Your task to perform on an android device: turn on bluetooth scan Image 0: 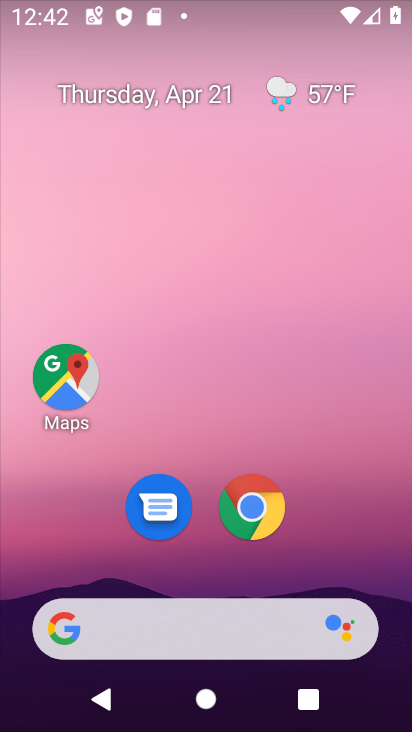
Step 0: drag from (198, 547) to (67, 0)
Your task to perform on an android device: turn on bluetooth scan Image 1: 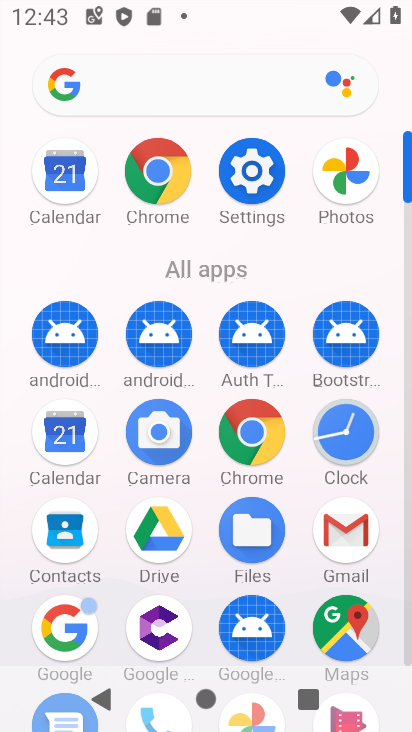
Step 1: click (252, 181)
Your task to perform on an android device: turn on bluetooth scan Image 2: 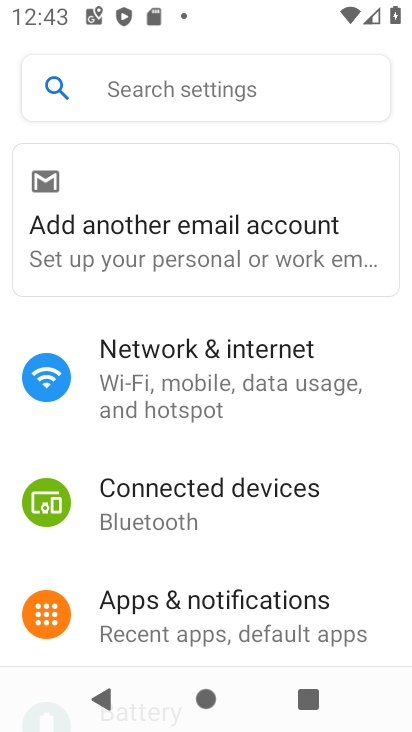
Step 2: click (202, 89)
Your task to perform on an android device: turn on bluetooth scan Image 3: 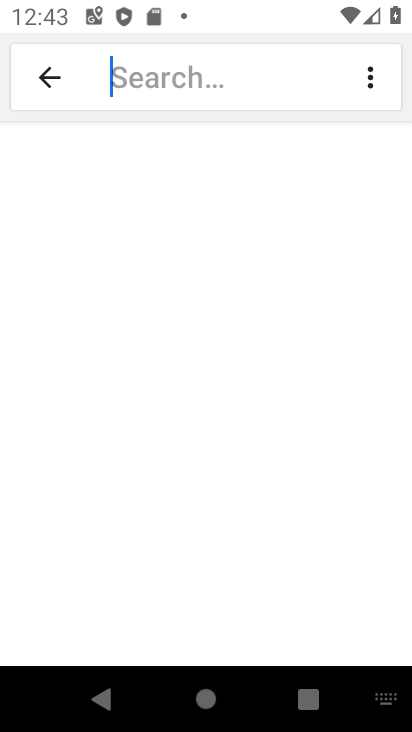
Step 3: type "bluetooth"
Your task to perform on an android device: turn on bluetooth scan Image 4: 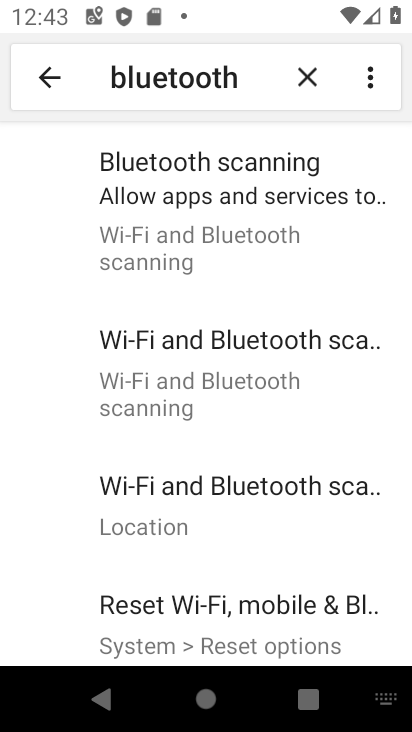
Step 4: click (284, 185)
Your task to perform on an android device: turn on bluetooth scan Image 5: 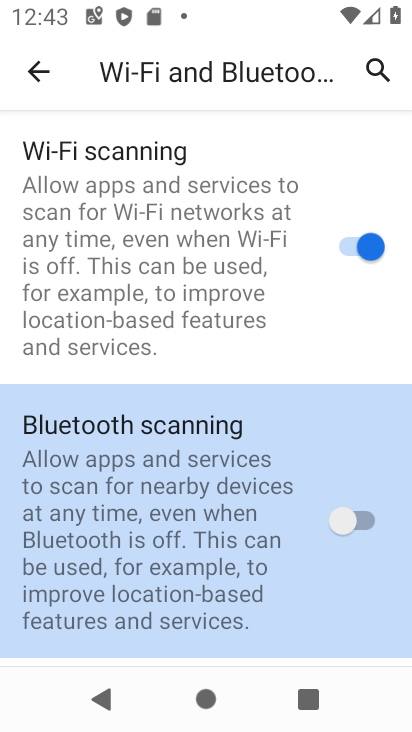
Step 5: click (343, 508)
Your task to perform on an android device: turn on bluetooth scan Image 6: 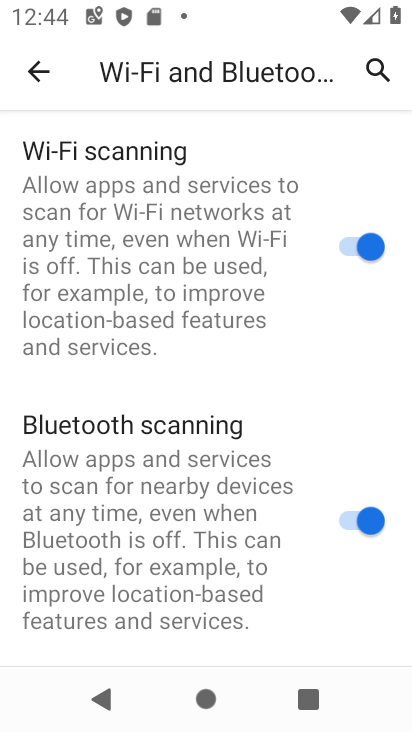
Step 6: task complete